Your task to perform on an android device: check storage Image 0: 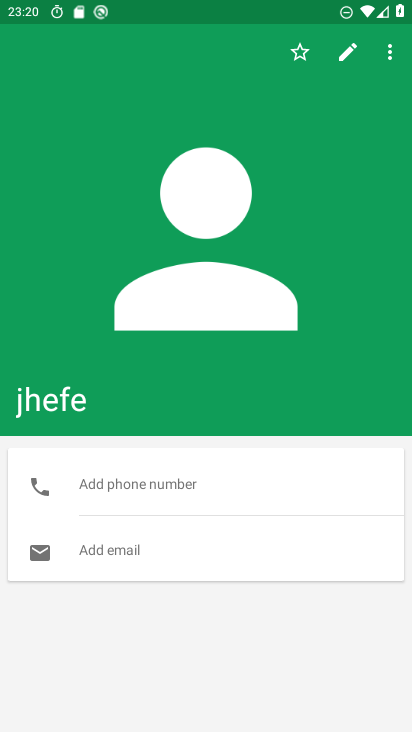
Step 0: press home button
Your task to perform on an android device: check storage Image 1: 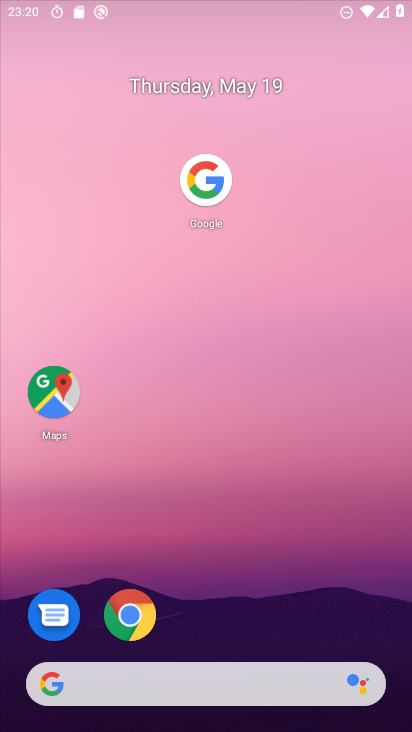
Step 1: drag from (214, 538) to (293, 72)
Your task to perform on an android device: check storage Image 2: 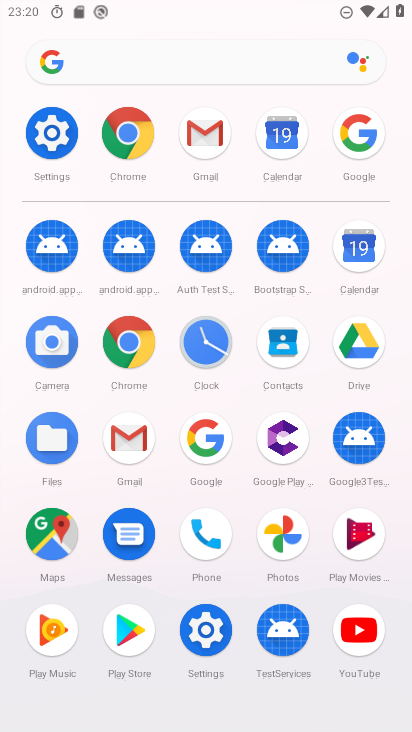
Step 2: click (57, 122)
Your task to perform on an android device: check storage Image 3: 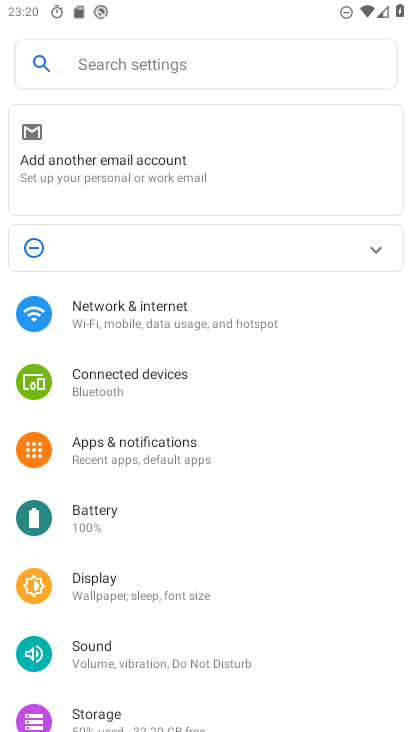
Step 3: click (107, 713)
Your task to perform on an android device: check storage Image 4: 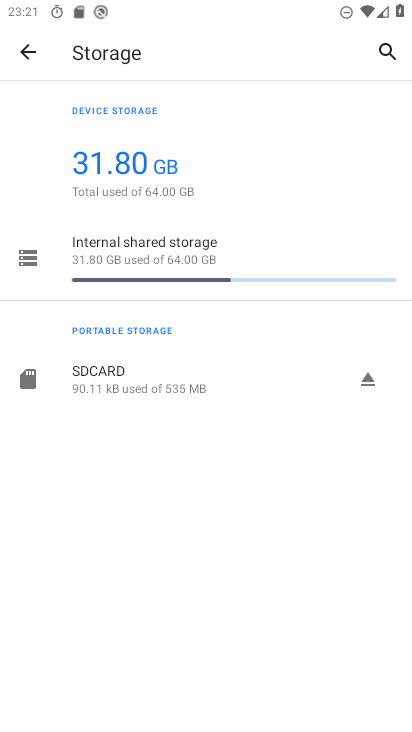
Step 4: task complete